Your task to perform on an android device: change the clock display to show seconds Image 0: 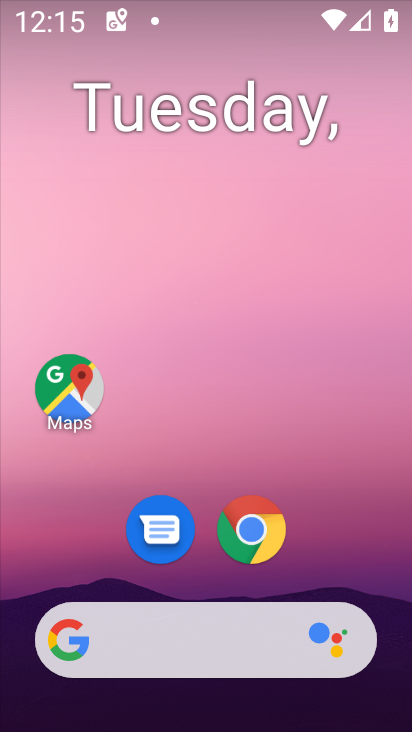
Step 0: drag from (219, 567) to (281, 57)
Your task to perform on an android device: change the clock display to show seconds Image 1: 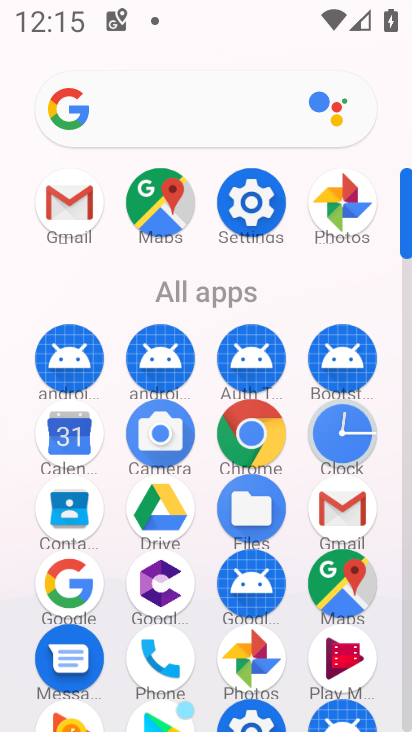
Step 1: click (347, 433)
Your task to perform on an android device: change the clock display to show seconds Image 2: 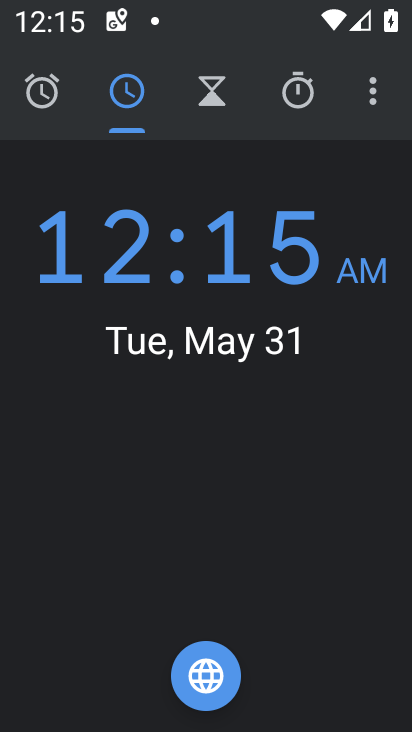
Step 2: click (369, 97)
Your task to perform on an android device: change the clock display to show seconds Image 3: 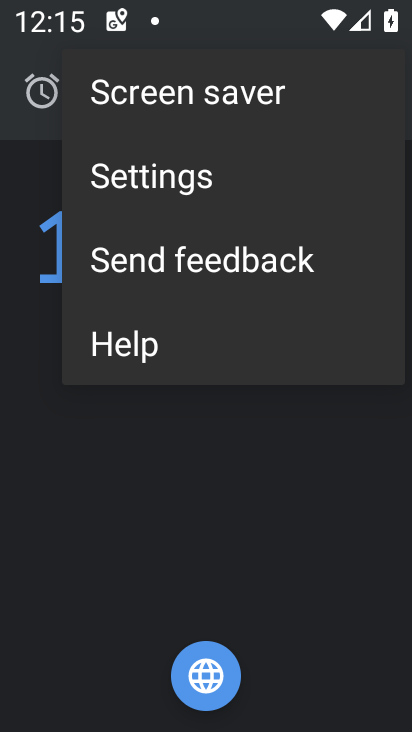
Step 3: click (175, 189)
Your task to perform on an android device: change the clock display to show seconds Image 4: 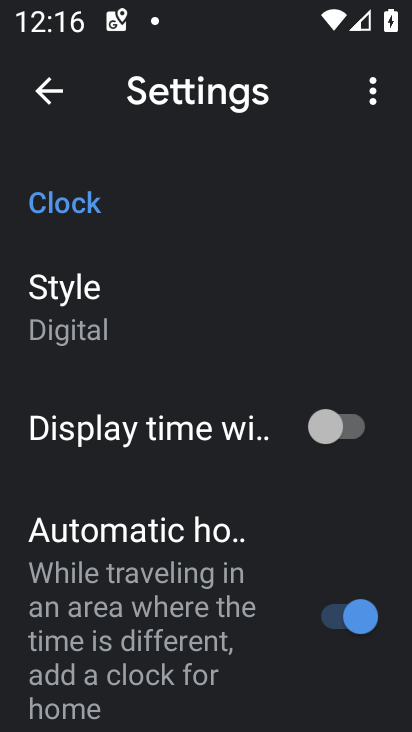
Step 4: click (341, 428)
Your task to perform on an android device: change the clock display to show seconds Image 5: 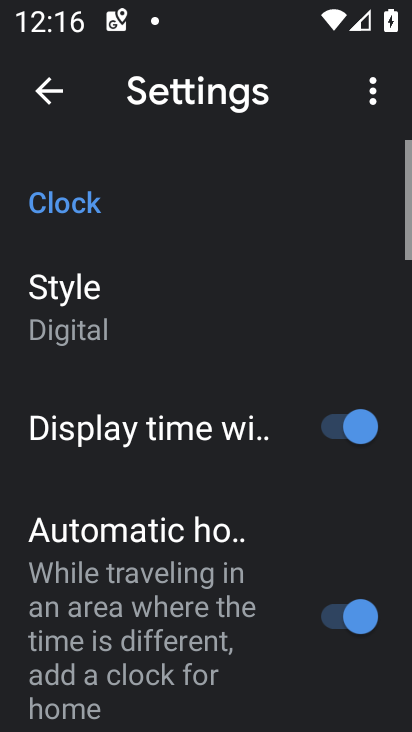
Step 5: task complete